Your task to perform on an android device: Go to notification settings Image 0: 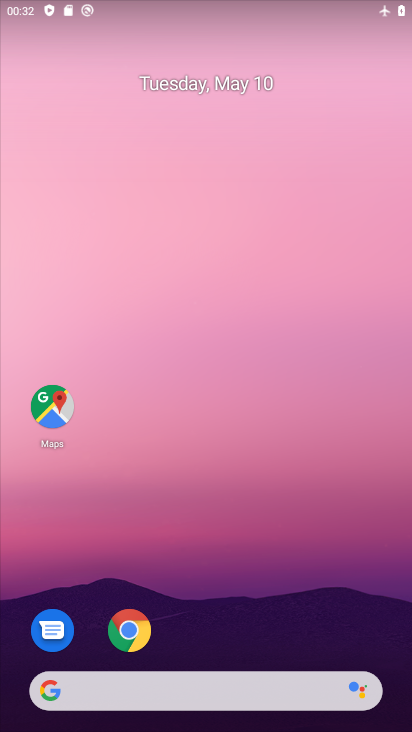
Step 0: drag from (213, 726) to (214, 180)
Your task to perform on an android device: Go to notification settings Image 1: 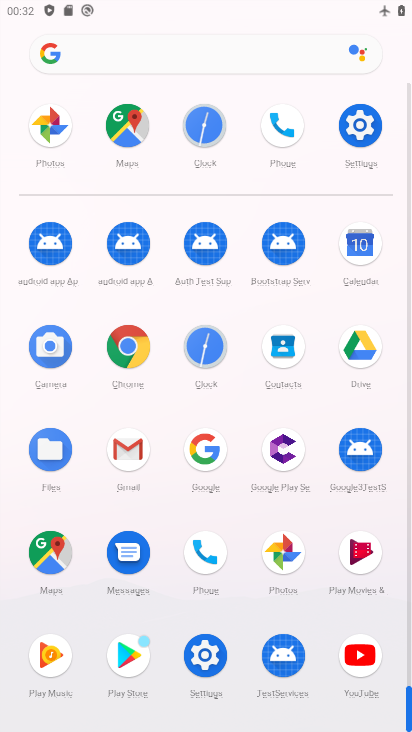
Step 1: click (358, 124)
Your task to perform on an android device: Go to notification settings Image 2: 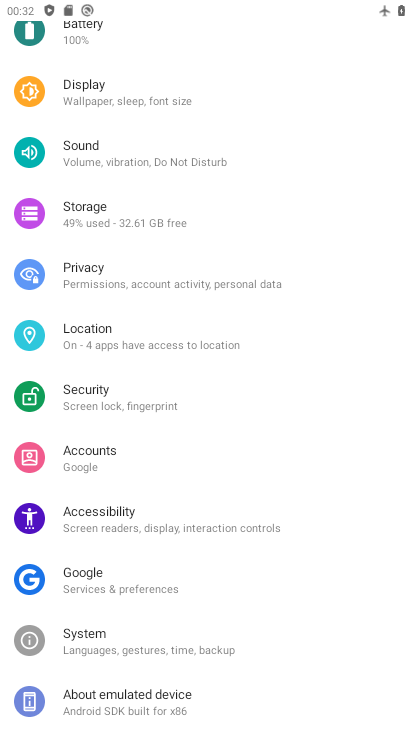
Step 2: drag from (295, 148) to (341, 500)
Your task to perform on an android device: Go to notification settings Image 3: 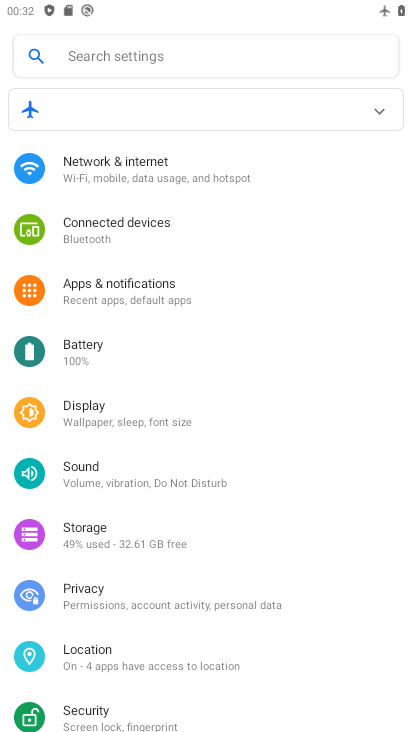
Step 3: click (148, 286)
Your task to perform on an android device: Go to notification settings Image 4: 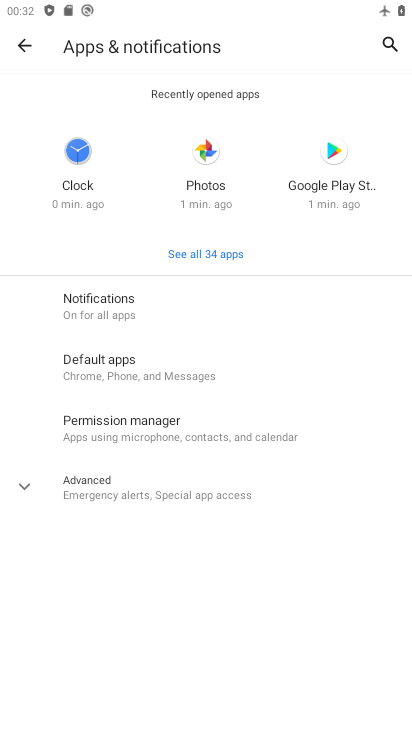
Step 4: click (99, 310)
Your task to perform on an android device: Go to notification settings Image 5: 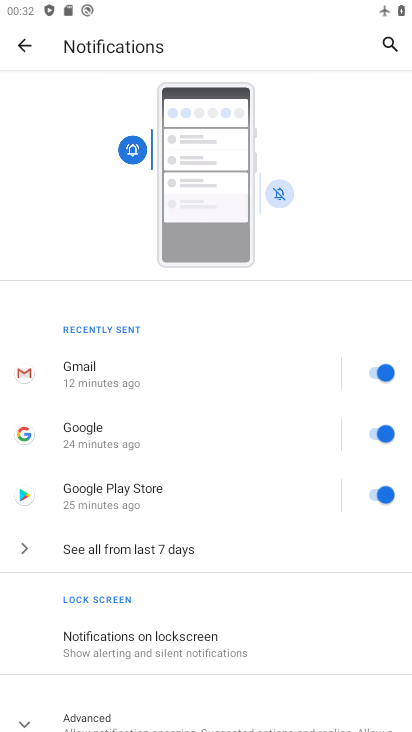
Step 5: task complete